Your task to perform on an android device: Clear all items from cart on newegg.com. Search for "acer predator" on newegg.com, select the first entry, and add it to the cart. Image 0: 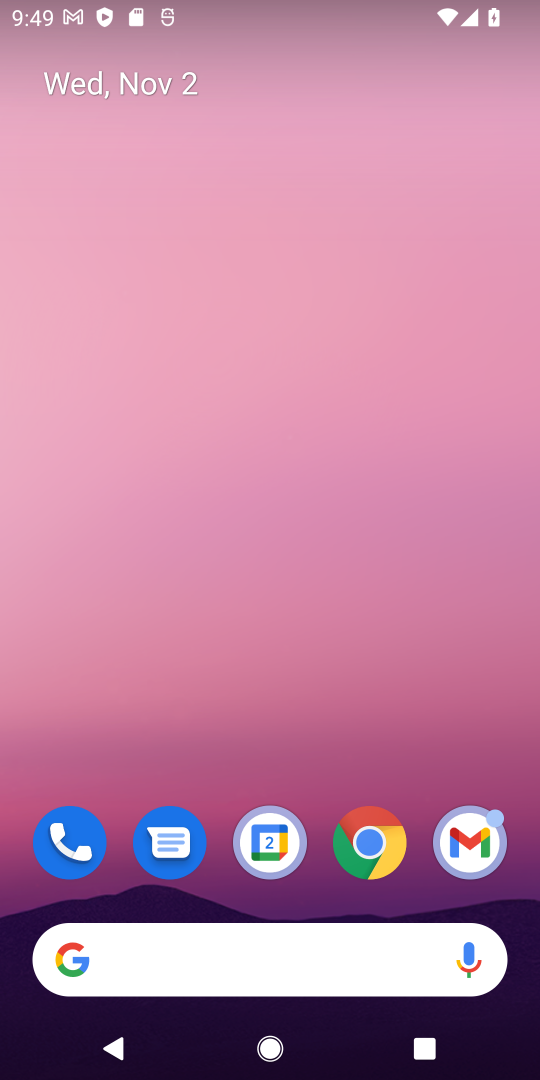
Step 0: drag from (186, 930) to (213, 298)
Your task to perform on an android device: Clear all items from cart on newegg.com. Search for "acer predator" on newegg.com, select the first entry, and add it to the cart. Image 1: 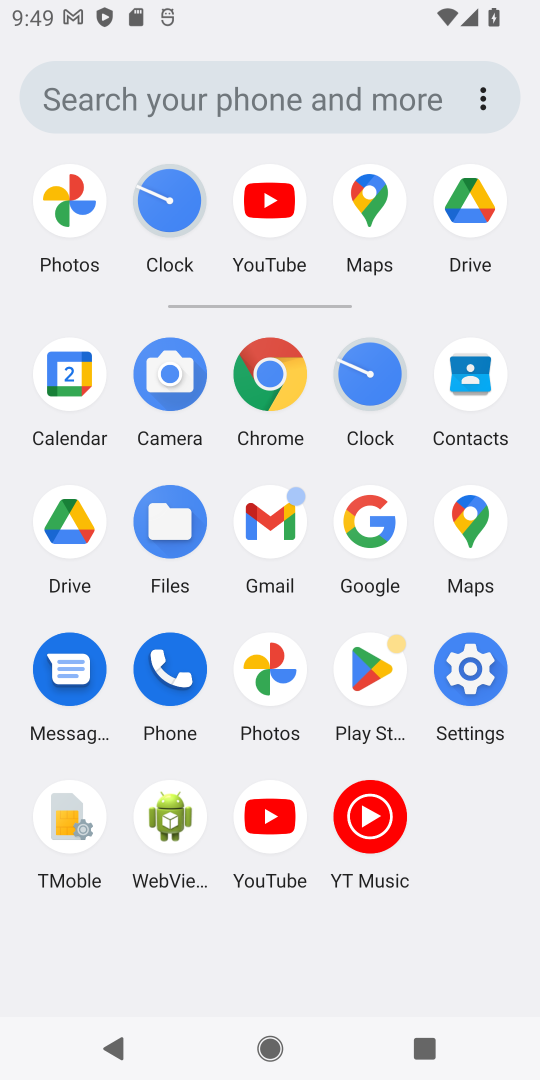
Step 1: click (370, 513)
Your task to perform on an android device: Clear all items from cart on newegg.com. Search for "acer predator" on newegg.com, select the first entry, and add it to the cart. Image 2: 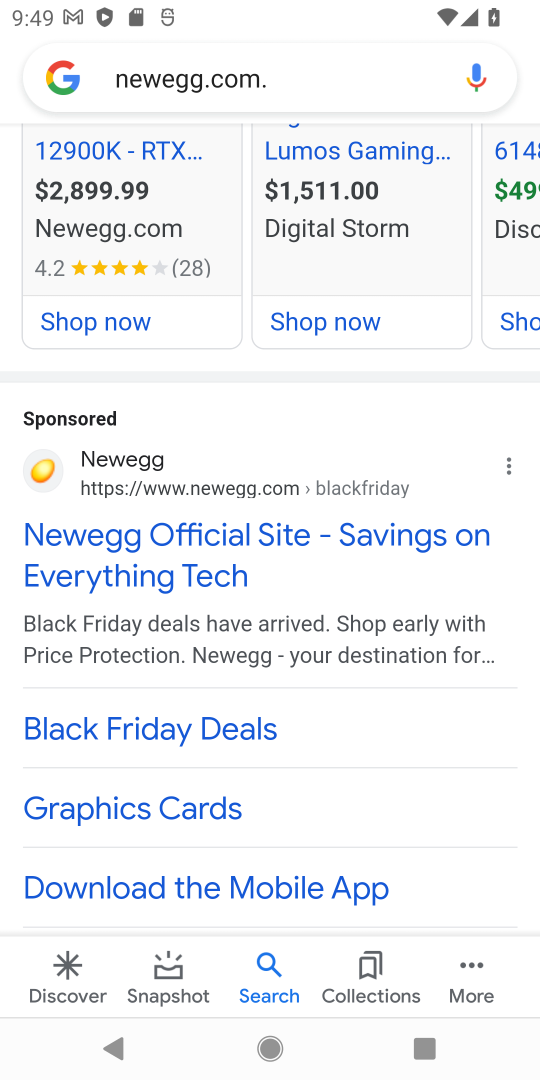
Step 2: click (42, 470)
Your task to perform on an android device: Clear all items from cart on newegg.com. Search for "acer predator" on newegg.com, select the first entry, and add it to the cart. Image 3: 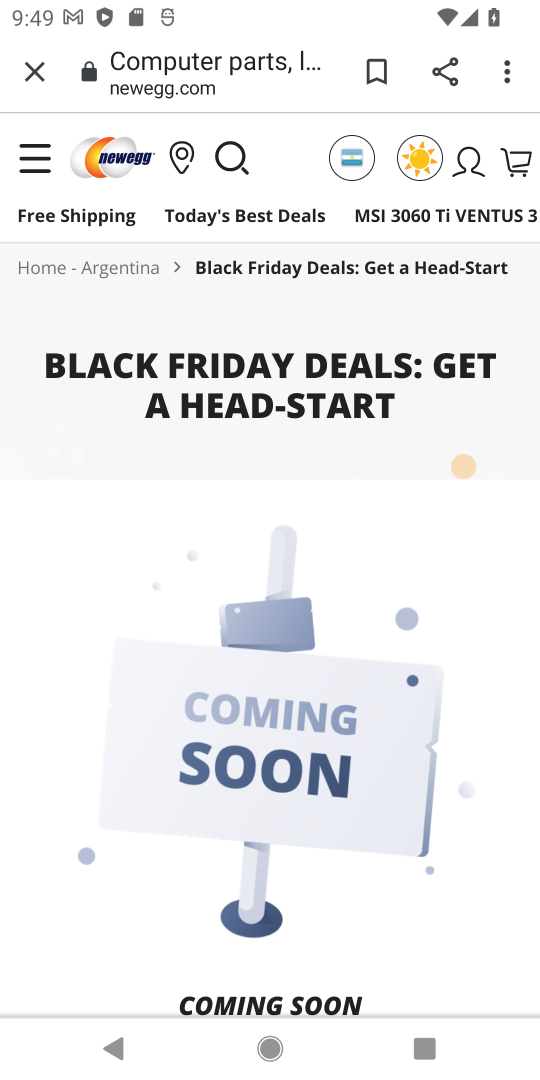
Step 3: click (232, 166)
Your task to perform on an android device: Clear all items from cart on newegg.com. Search for "acer predator" on newegg.com, select the first entry, and add it to the cart. Image 4: 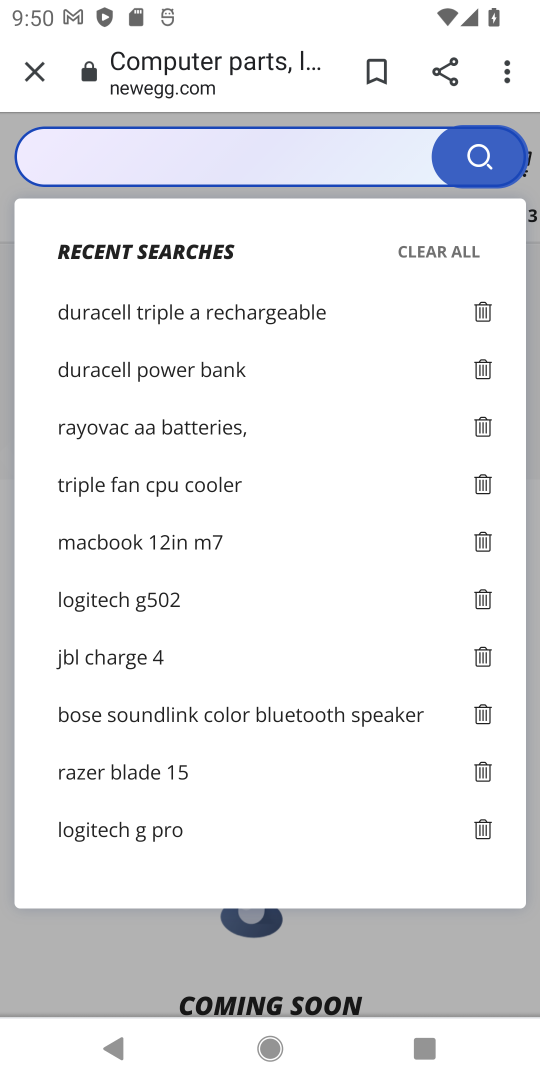
Step 4: click (232, 145)
Your task to perform on an android device: Clear all items from cart on newegg.com. Search for "acer predator" on newegg.com, select the first entry, and add it to the cart. Image 5: 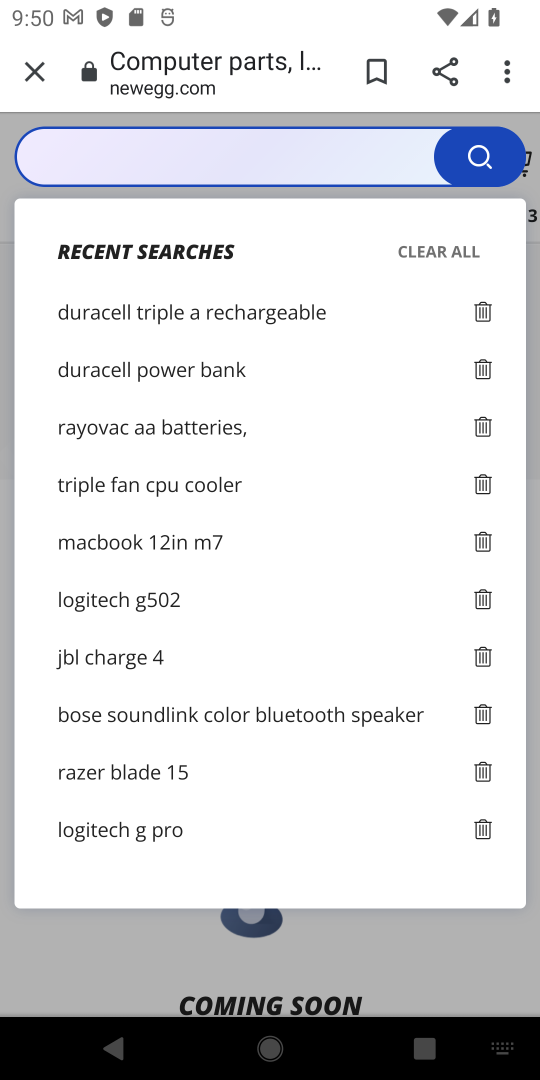
Step 5: type "acer predator "
Your task to perform on an android device: Clear all items from cart on newegg.com. Search for "acer predator" on newegg.com, select the first entry, and add it to the cart. Image 6: 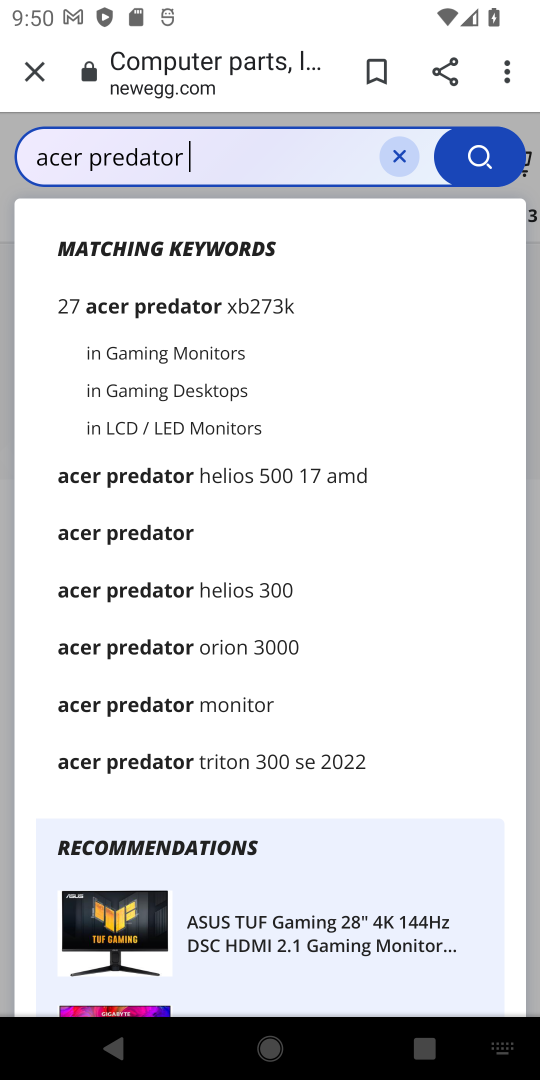
Step 6: click (120, 543)
Your task to perform on an android device: Clear all items from cart on newegg.com. Search for "acer predator" on newegg.com, select the first entry, and add it to the cart. Image 7: 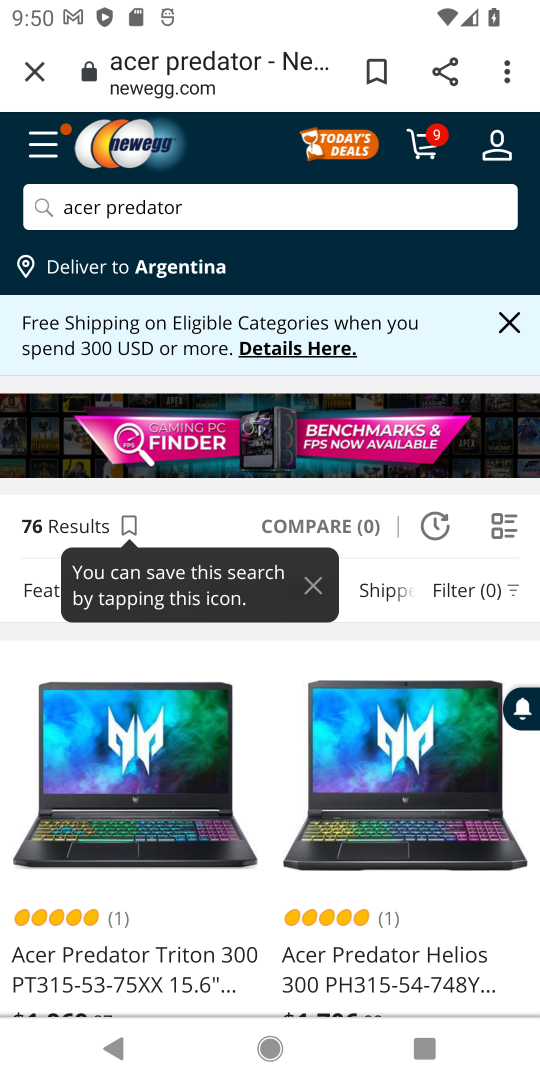
Step 7: click (67, 682)
Your task to perform on an android device: Clear all items from cart on newegg.com. Search for "acer predator" on newegg.com, select the first entry, and add it to the cart. Image 8: 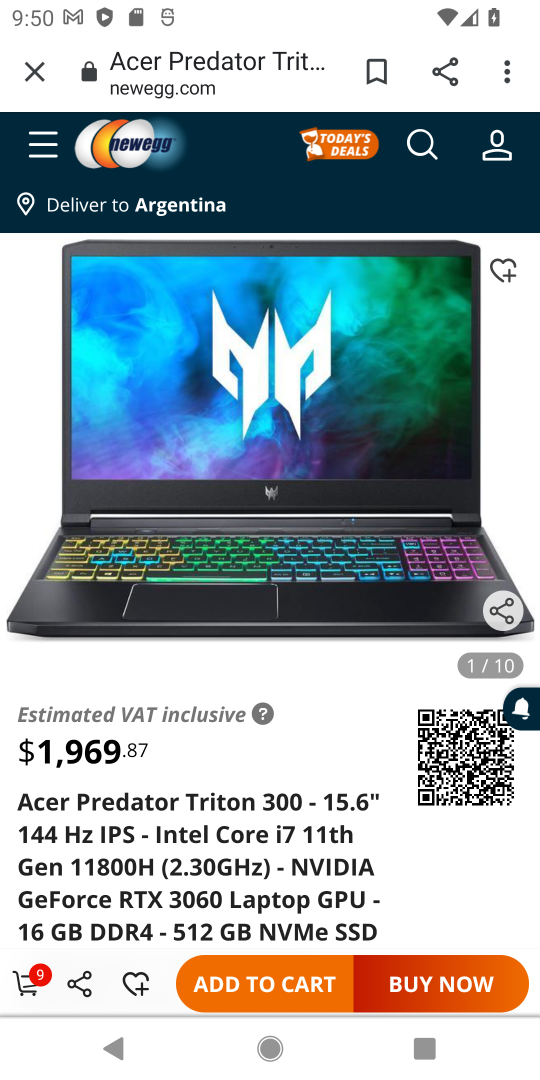
Step 8: click (216, 973)
Your task to perform on an android device: Clear all items from cart on newegg.com. Search for "acer predator" on newegg.com, select the first entry, and add it to the cart. Image 9: 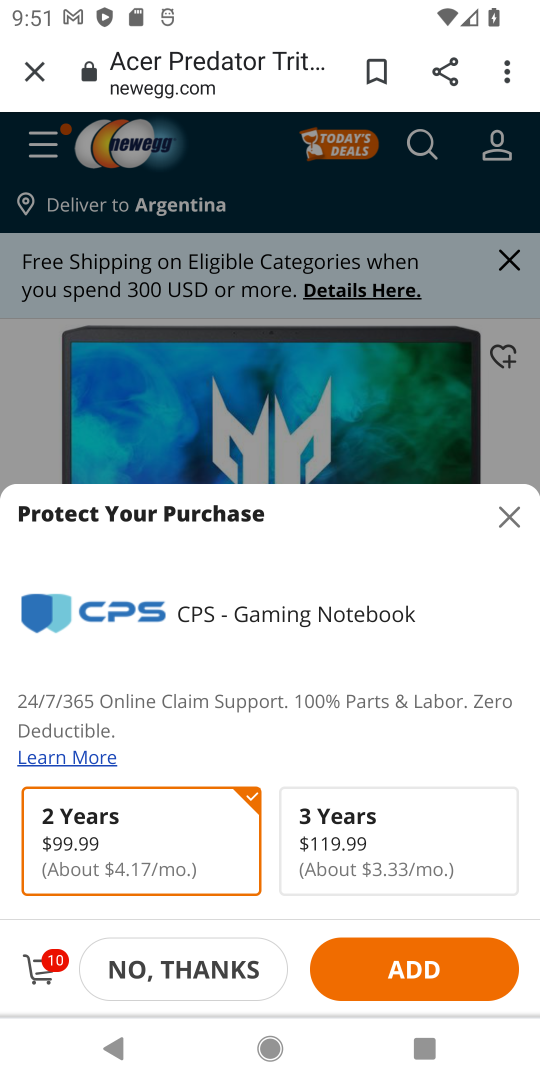
Step 9: click (437, 946)
Your task to perform on an android device: Clear all items from cart on newegg.com. Search for "acer predator" on newegg.com, select the first entry, and add it to the cart. Image 10: 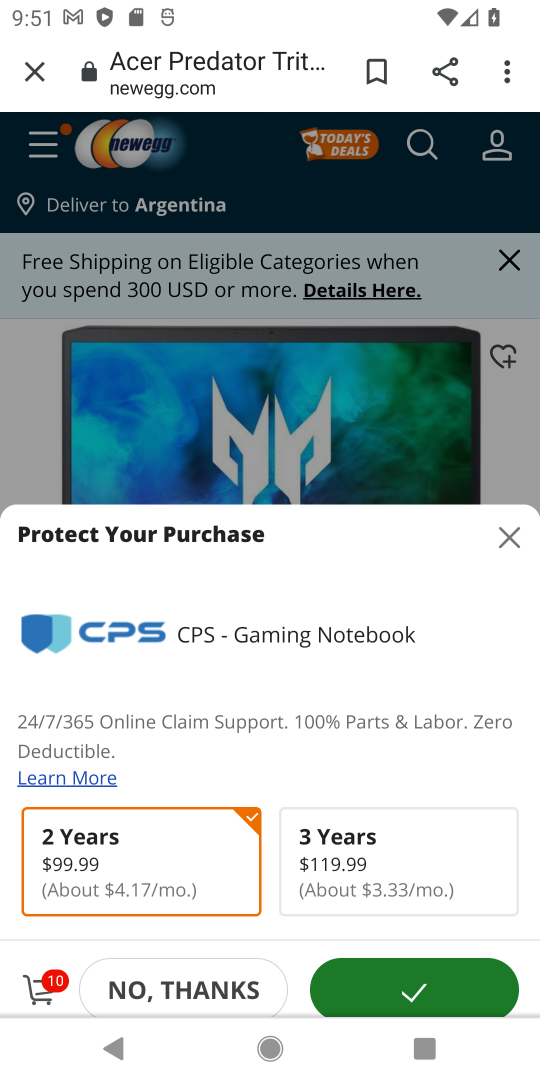
Step 10: click (425, 963)
Your task to perform on an android device: Clear all items from cart on newegg.com. Search for "acer predator" on newegg.com, select the first entry, and add it to the cart. Image 11: 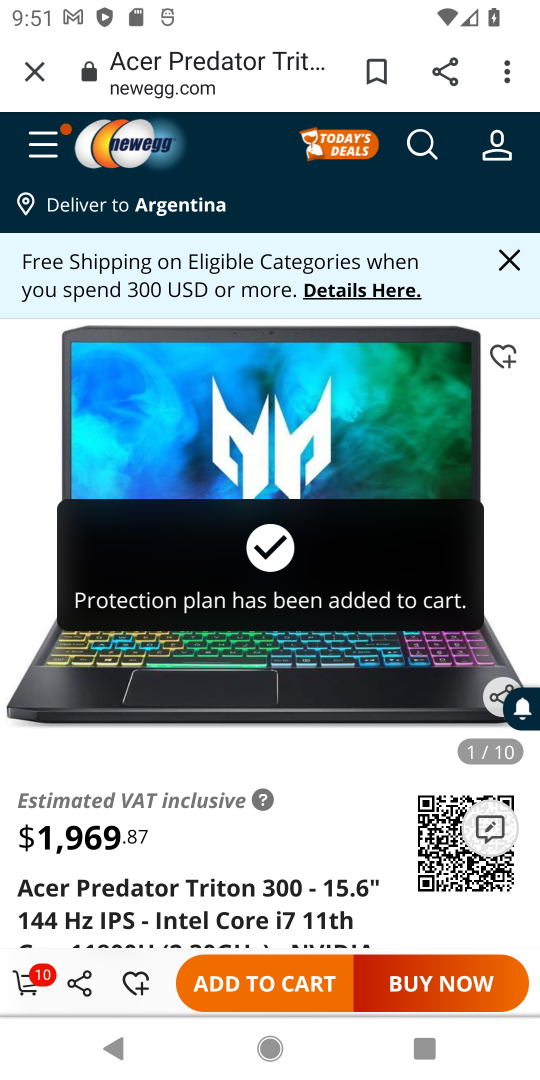
Step 11: task complete